Your task to perform on an android device: Open network settings Image 0: 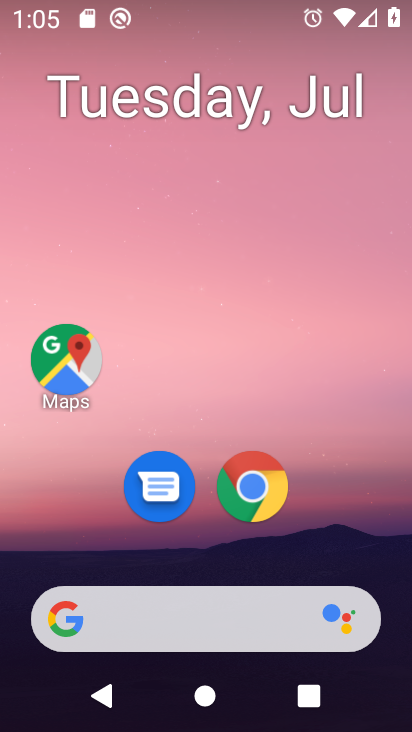
Step 0: drag from (368, 518) to (360, 98)
Your task to perform on an android device: Open network settings Image 1: 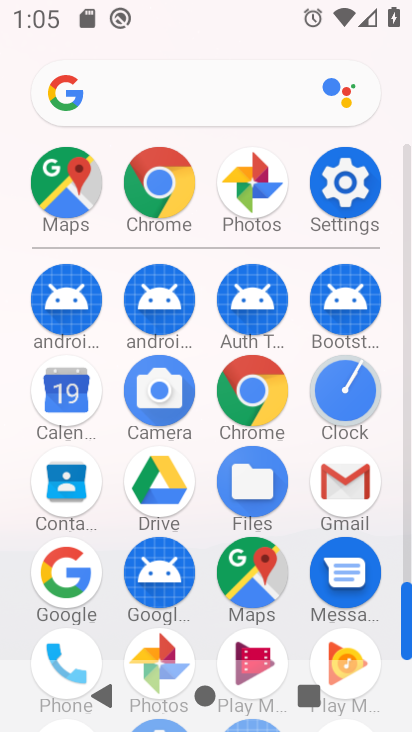
Step 1: click (352, 187)
Your task to perform on an android device: Open network settings Image 2: 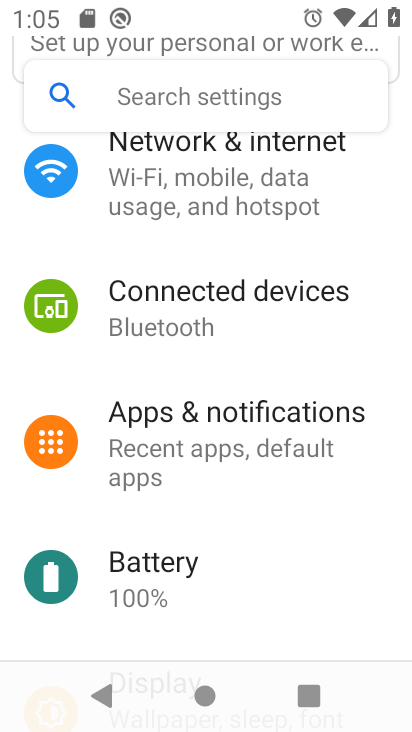
Step 2: drag from (324, 532) to (310, 295)
Your task to perform on an android device: Open network settings Image 3: 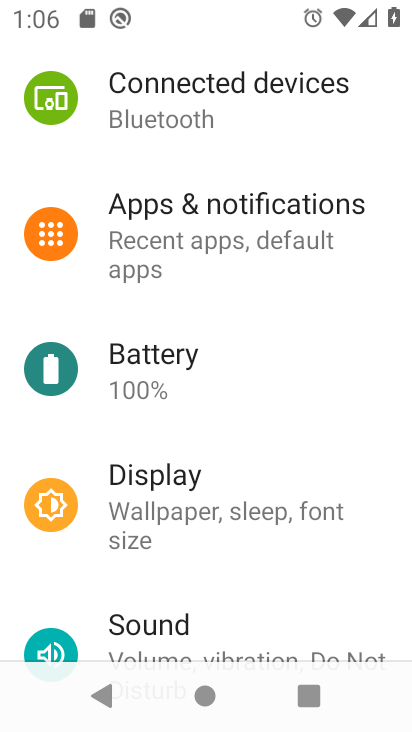
Step 3: drag from (314, 535) to (300, 333)
Your task to perform on an android device: Open network settings Image 4: 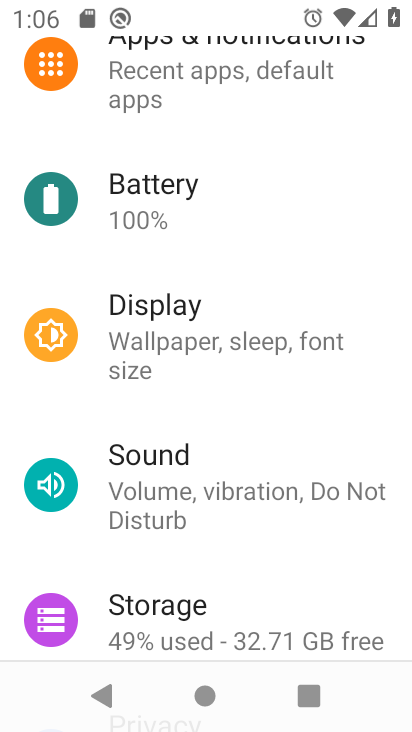
Step 4: drag from (320, 550) to (315, 365)
Your task to perform on an android device: Open network settings Image 5: 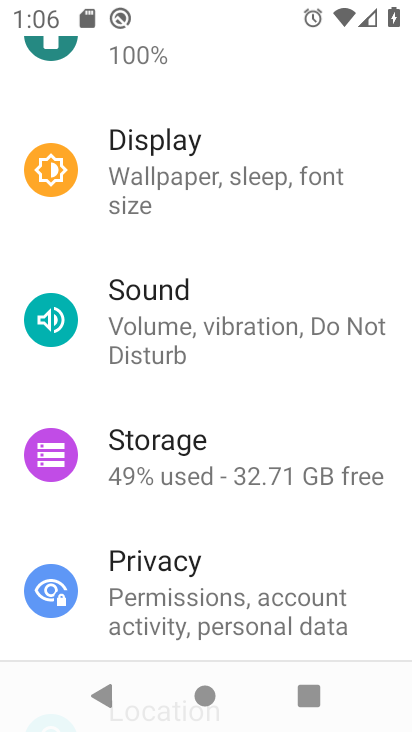
Step 5: drag from (327, 520) to (305, 331)
Your task to perform on an android device: Open network settings Image 6: 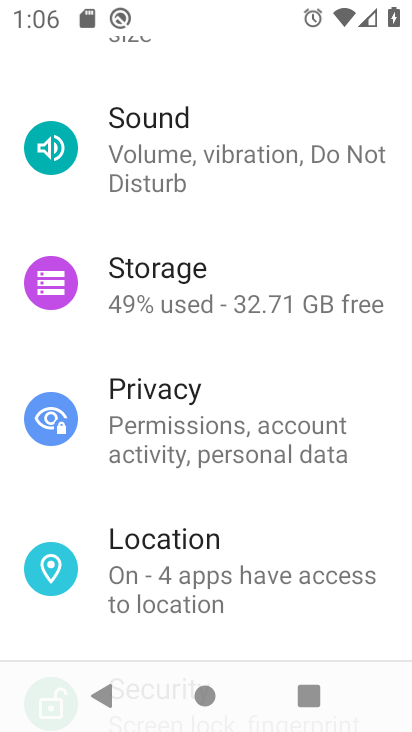
Step 6: drag from (344, 511) to (338, 343)
Your task to perform on an android device: Open network settings Image 7: 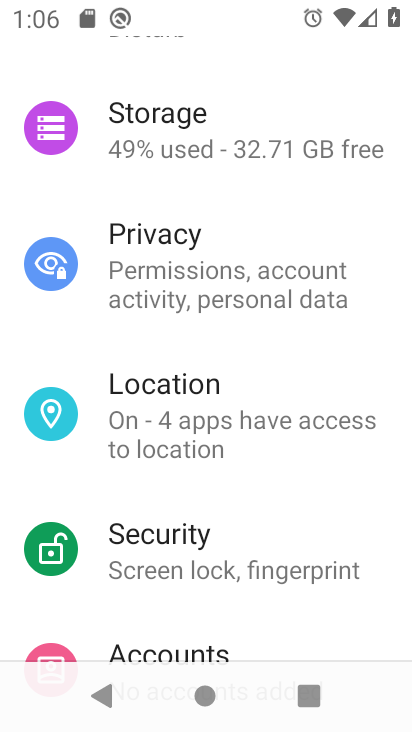
Step 7: drag from (358, 232) to (369, 386)
Your task to perform on an android device: Open network settings Image 8: 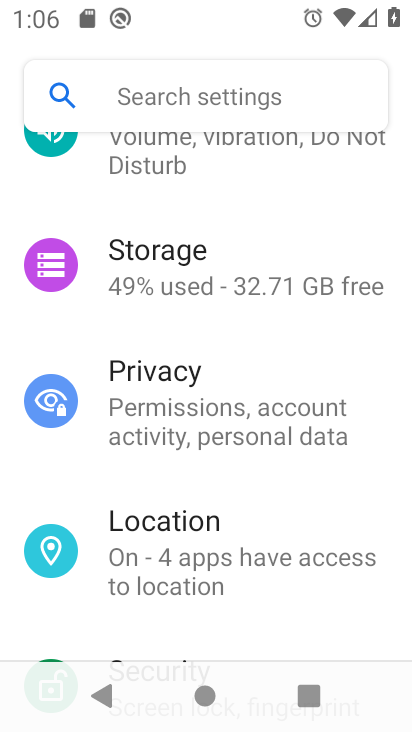
Step 8: drag from (372, 204) to (375, 356)
Your task to perform on an android device: Open network settings Image 9: 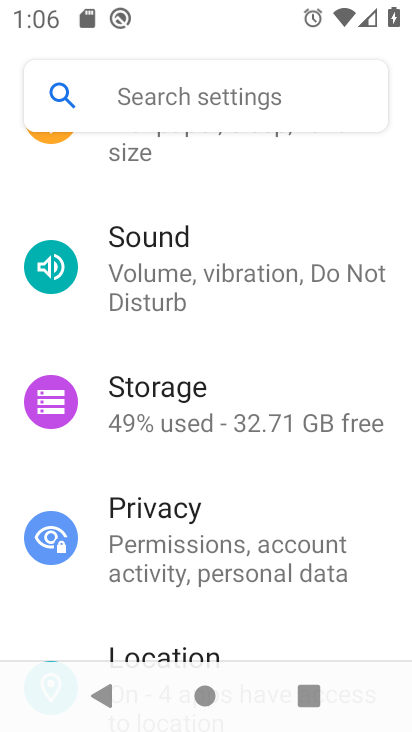
Step 9: drag from (348, 219) to (365, 376)
Your task to perform on an android device: Open network settings Image 10: 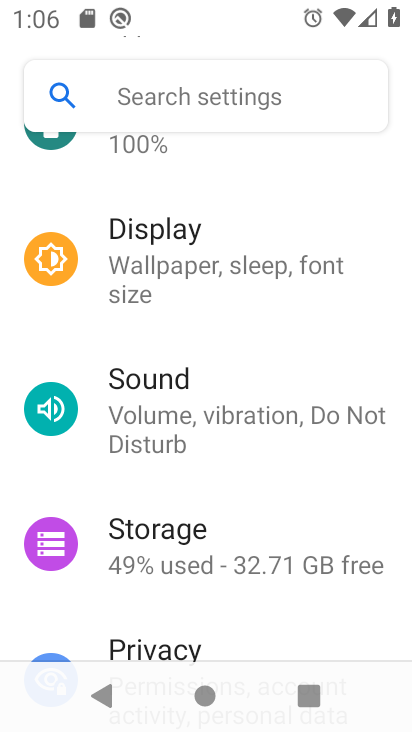
Step 10: drag from (343, 211) to (347, 349)
Your task to perform on an android device: Open network settings Image 11: 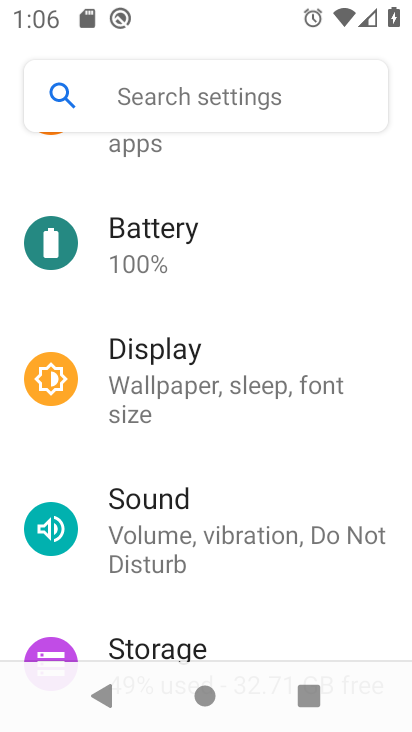
Step 11: drag from (332, 203) to (345, 338)
Your task to perform on an android device: Open network settings Image 12: 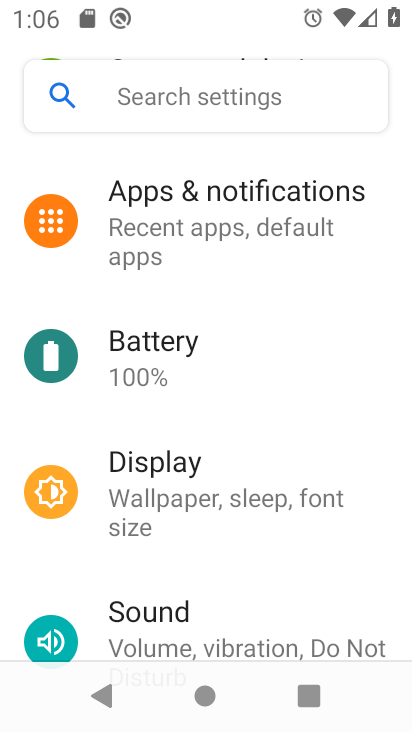
Step 12: drag from (332, 161) to (353, 402)
Your task to perform on an android device: Open network settings Image 13: 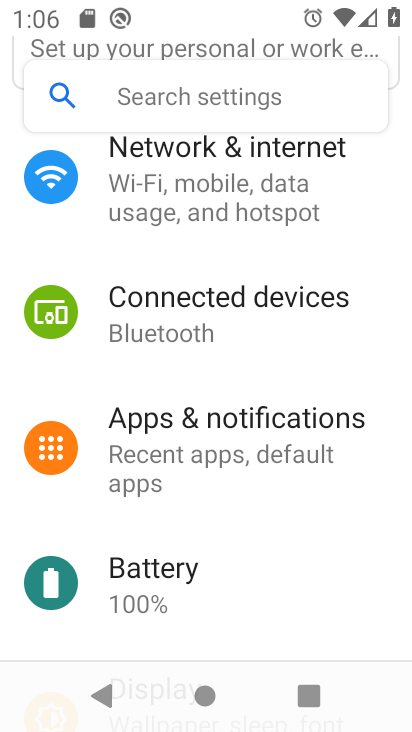
Step 13: click (282, 199)
Your task to perform on an android device: Open network settings Image 14: 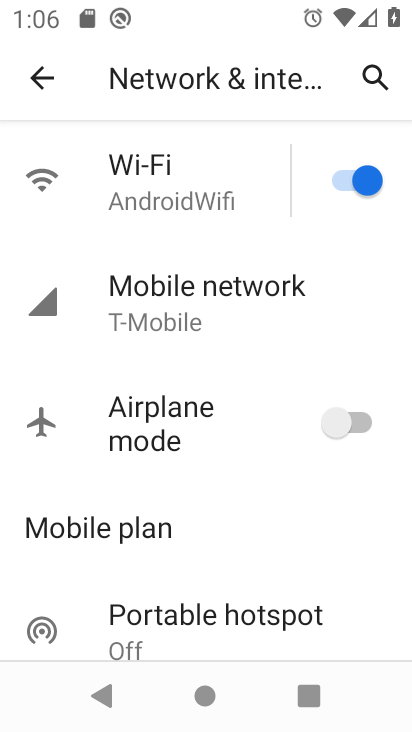
Step 14: task complete